Your task to perform on an android device: Search for the best rated running shoes on Nike.com Image 0: 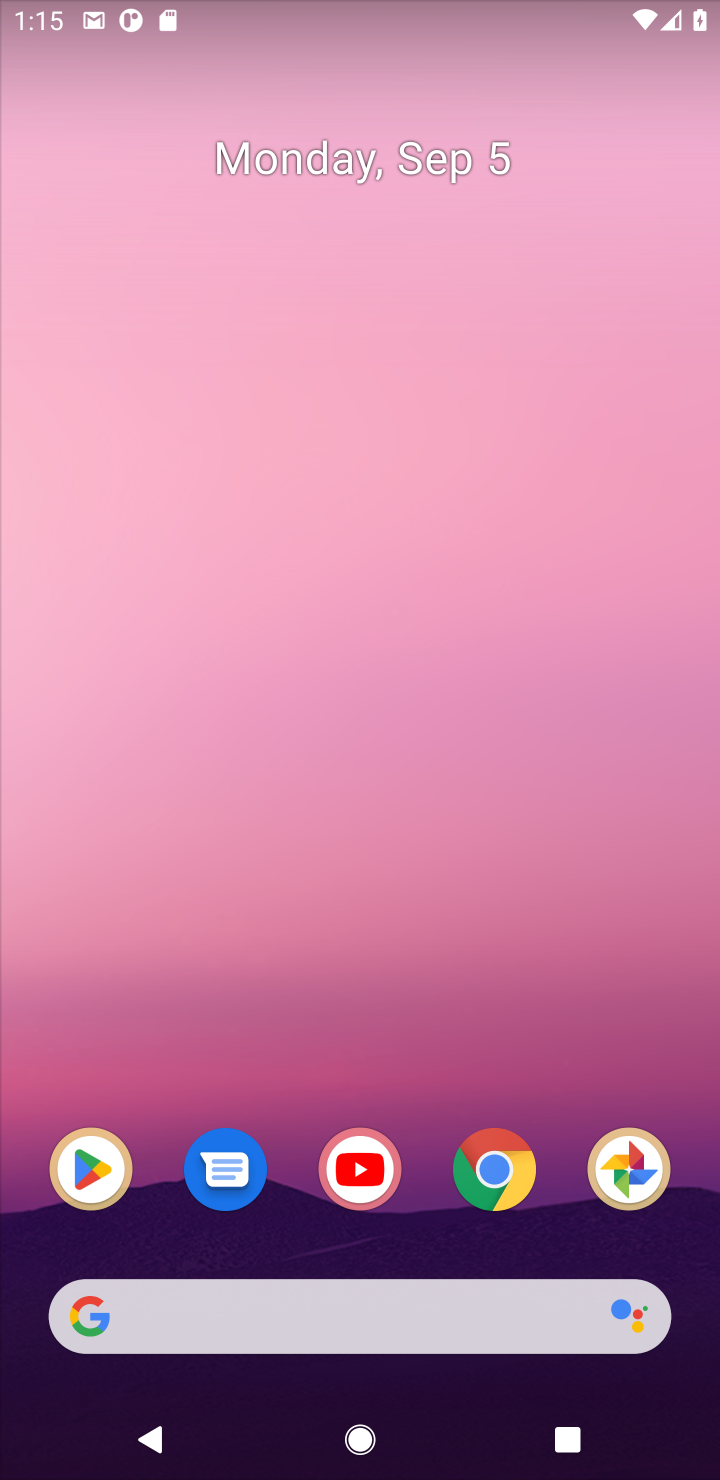
Step 0: click (597, 1209)
Your task to perform on an android device: Search for the best rated running shoes on Nike.com Image 1: 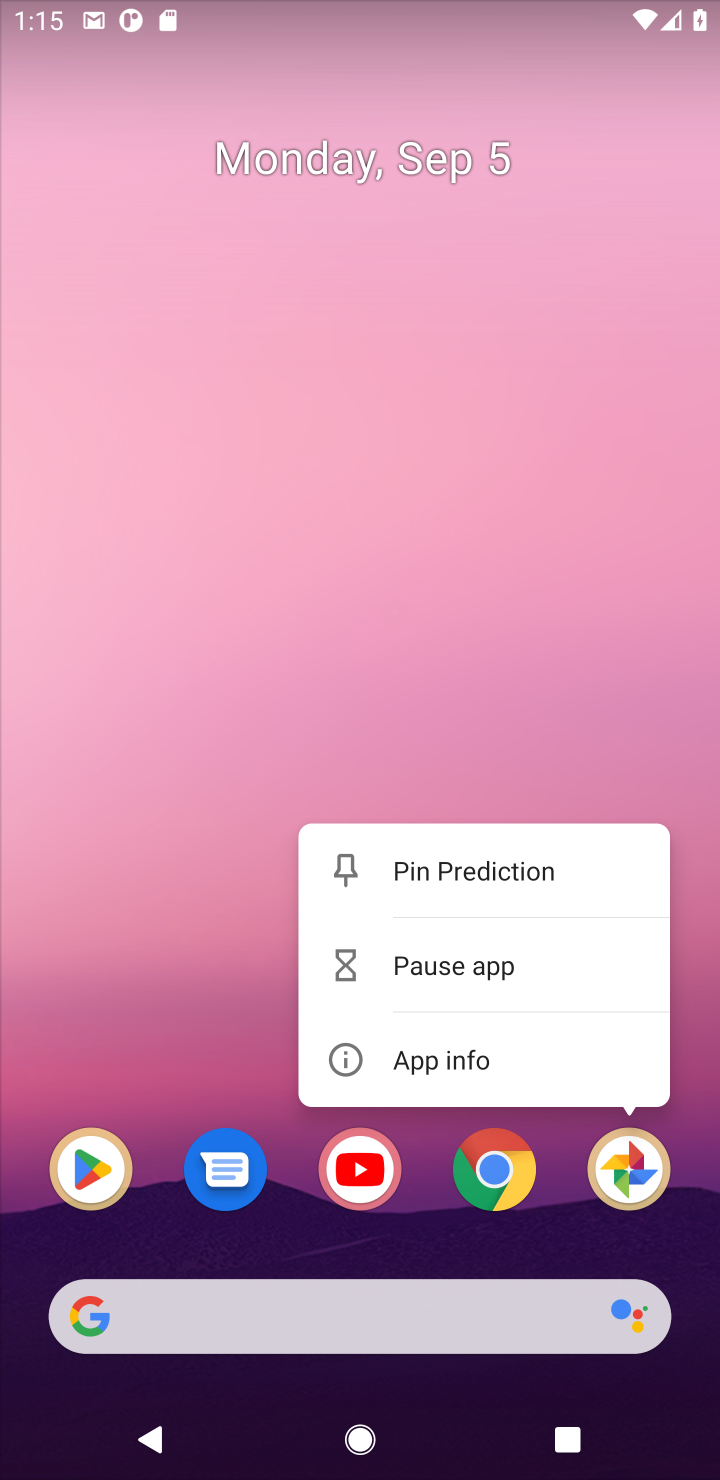
Step 1: click (103, 1201)
Your task to perform on an android device: Search for the best rated running shoes on Nike.com Image 2: 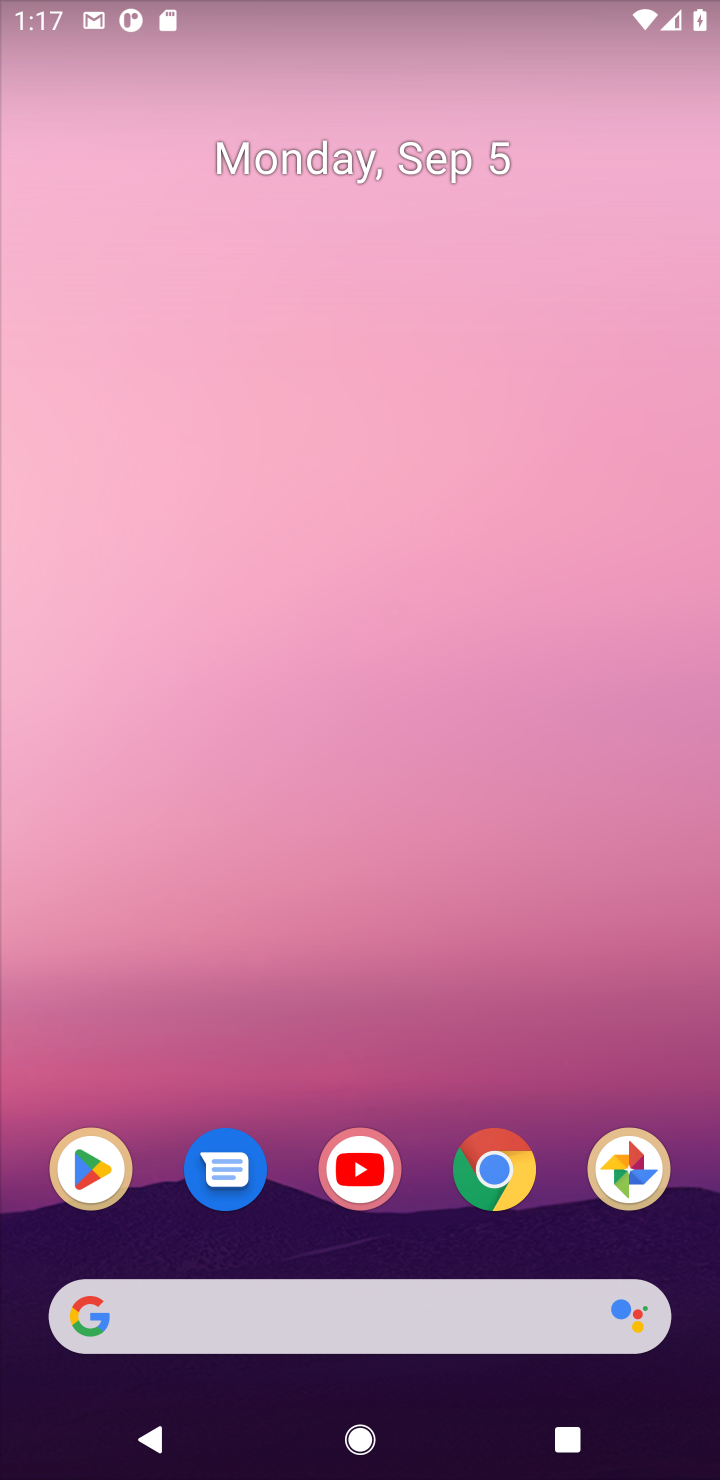
Step 2: click (95, 1172)
Your task to perform on an android device: Search for the best rated running shoes on Nike.com Image 3: 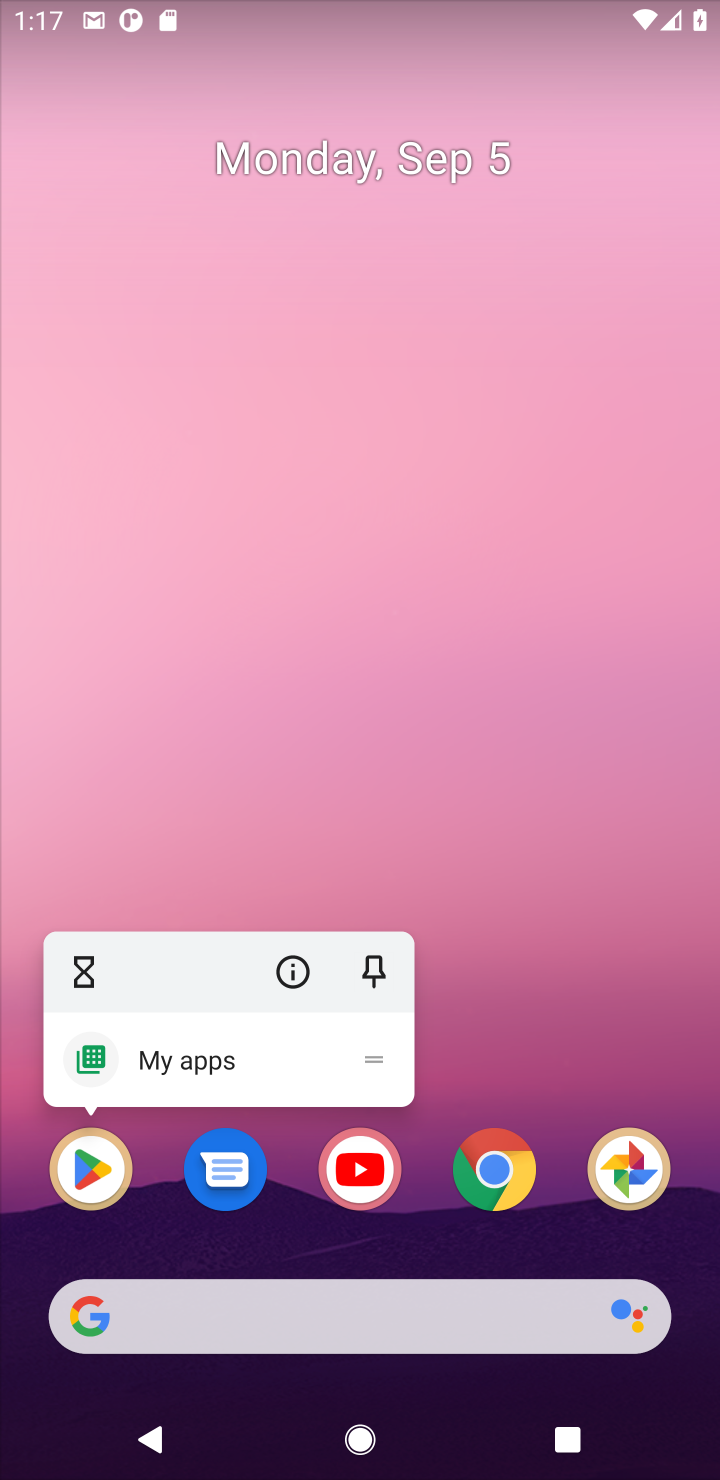
Step 3: task complete